Your task to perform on an android device: Go to wifi settings Image 0: 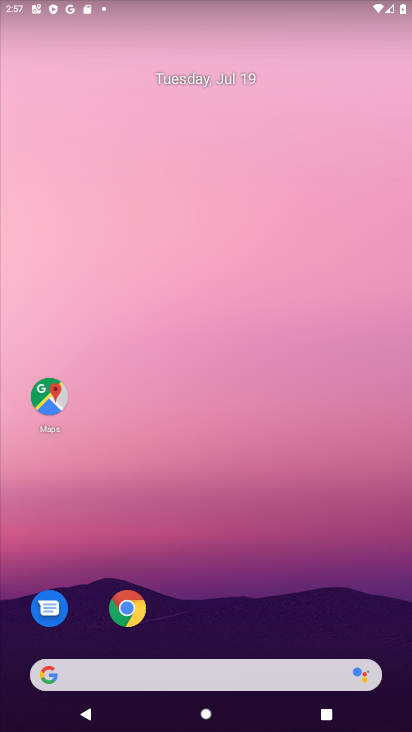
Step 0: drag from (303, 609) to (180, 43)
Your task to perform on an android device: Go to wifi settings Image 1: 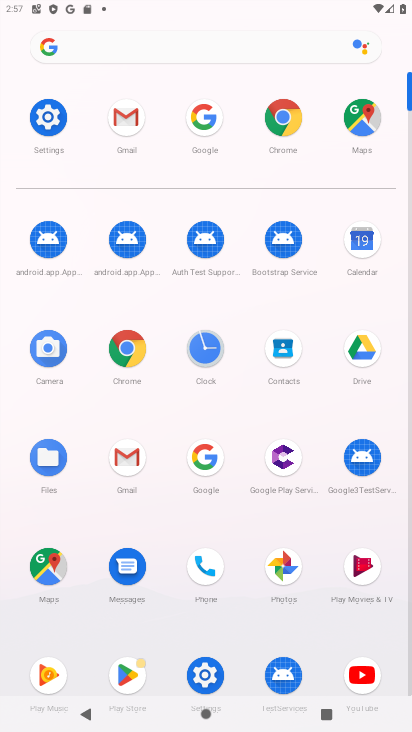
Step 1: click (56, 124)
Your task to perform on an android device: Go to wifi settings Image 2: 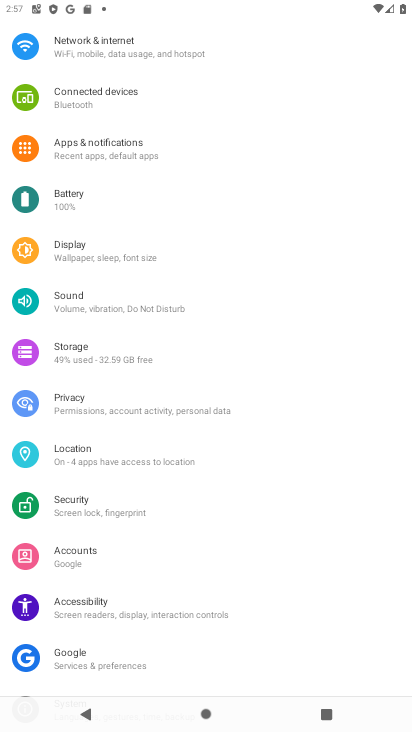
Step 2: click (133, 48)
Your task to perform on an android device: Go to wifi settings Image 3: 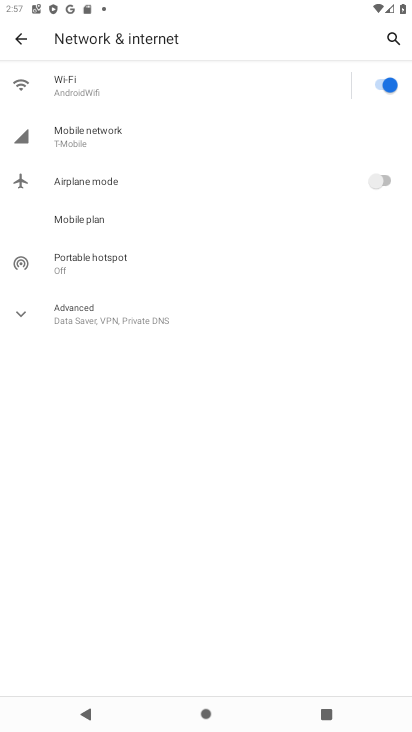
Step 3: click (110, 92)
Your task to perform on an android device: Go to wifi settings Image 4: 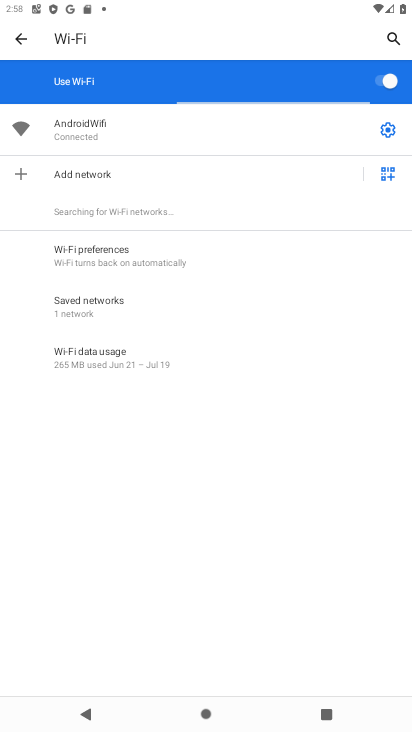
Step 4: click (385, 126)
Your task to perform on an android device: Go to wifi settings Image 5: 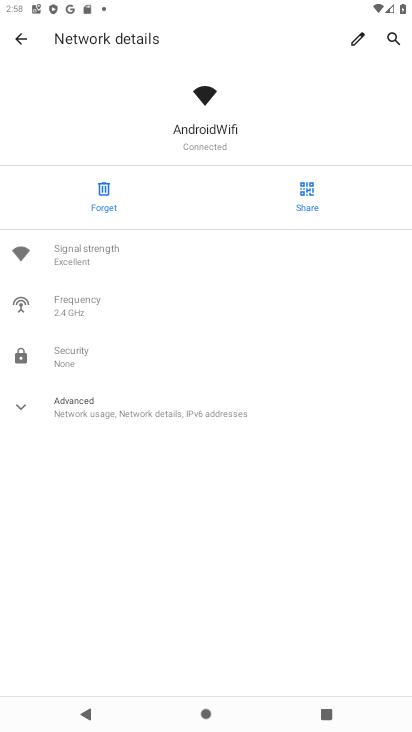
Step 5: task complete